Your task to perform on an android device: Is it going to rain today? Image 0: 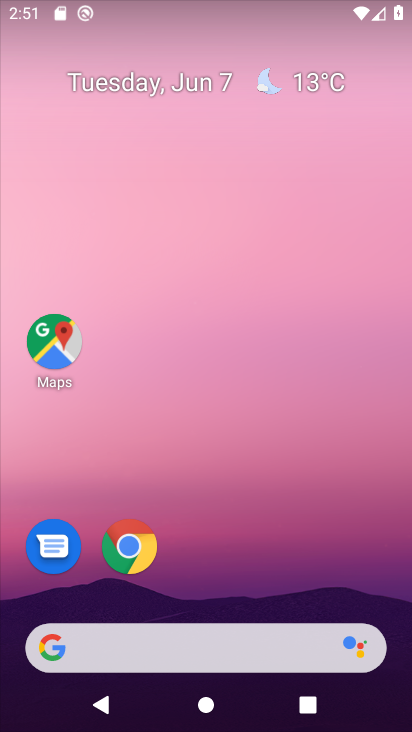
Step 0: click (243, 646)
Your task to perform on an android device: Is it going to rain today? Image 1: 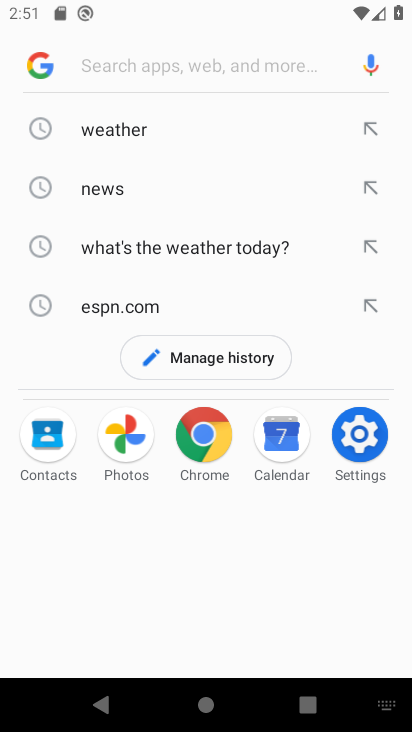
Step 1: click (139, 137)
Your task to perform on an android device: Is it going to rain today? Image 2: 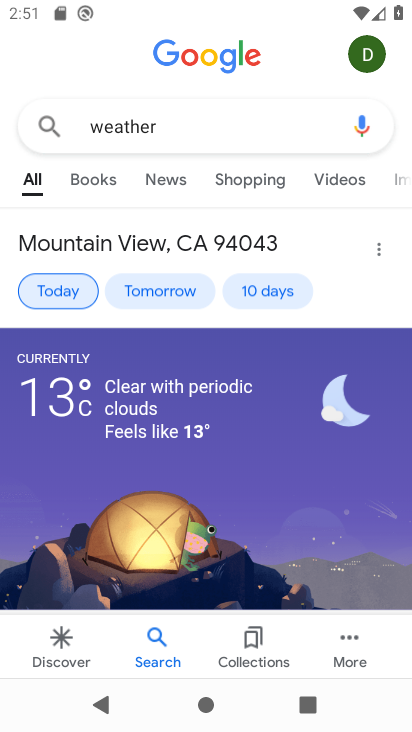
Step 2: task complete